Your task to perform on an android device: set default search engine in the chrome app Image 0: 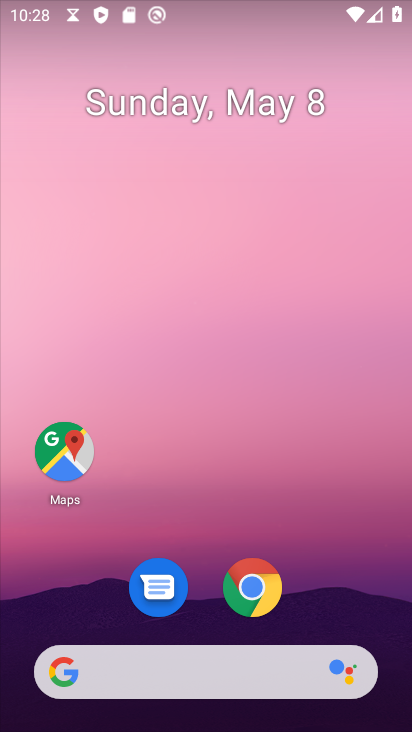
Step 0: click (262, 589)
Your task to perform on an android device: set default search engine in the chrome app Image 1: 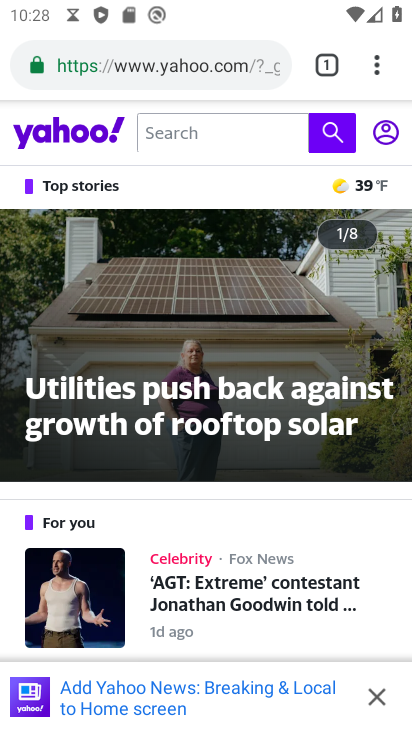
Step 1: drag from (377, 60) to (162, 631)
Your task to perform on an android device: set default search engine in the chrome app Image 2: 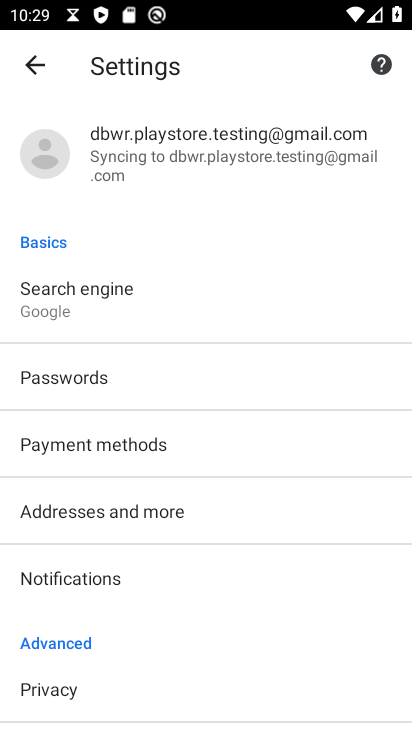
Step 2: click (82, 297)
Your task to perform on an android device: set default search engine in the chrome app Image 3: 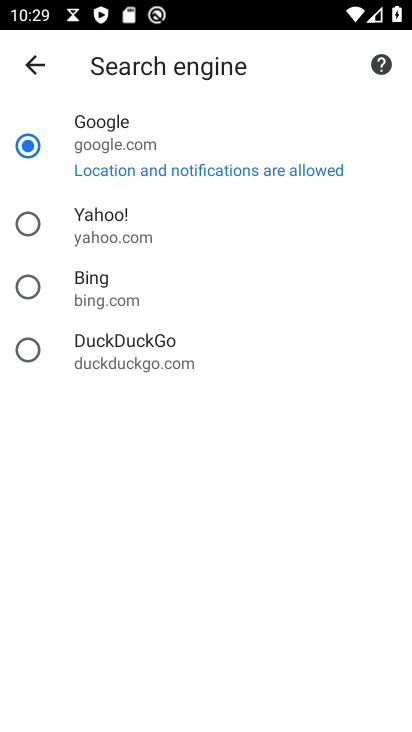
Step 3: click (109, 338)
Your task to perform on an android device: set default search engine in the chrome app Image 4: 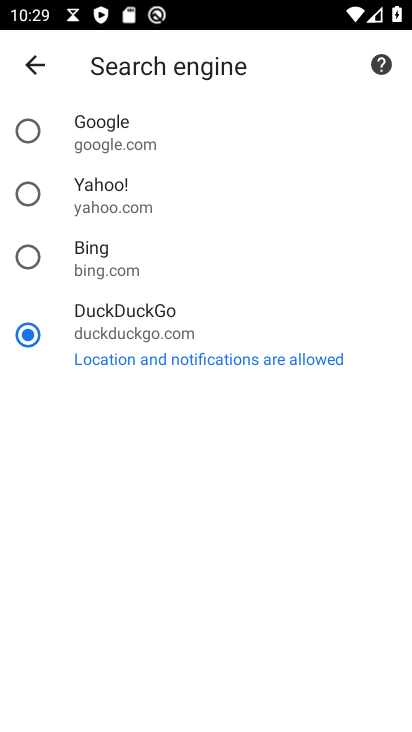
Step 4: task complete